Your task to perform on an android device: Go to accessibility settings Image 0: 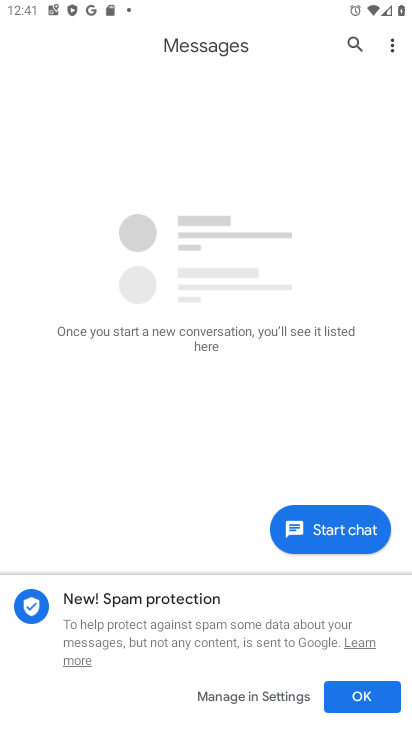
Step 0: press home button
Your task to perform on an android device: Go to accessibility settings Image 1: 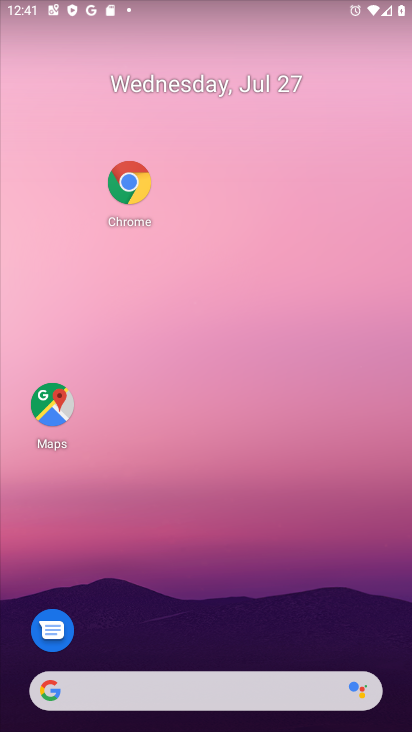
Step 1: drag from (134, 718) to (215, 57)
Your task to perform on an android device: Go to accessibility settings Image 2: 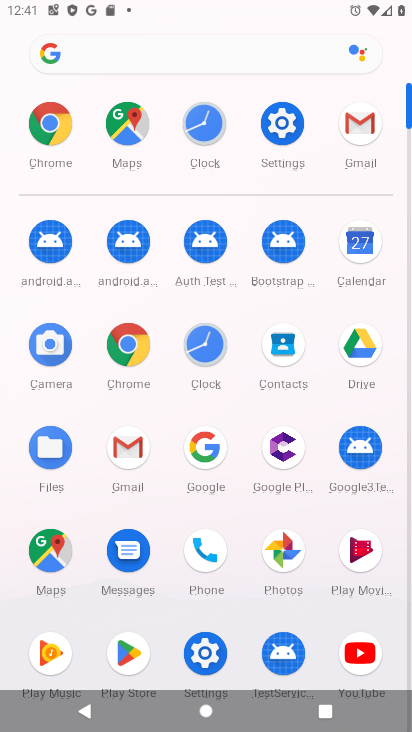
Step 2: click (279, 140)
Your task to perform on an android device: Go to accessibility settings Image 3: 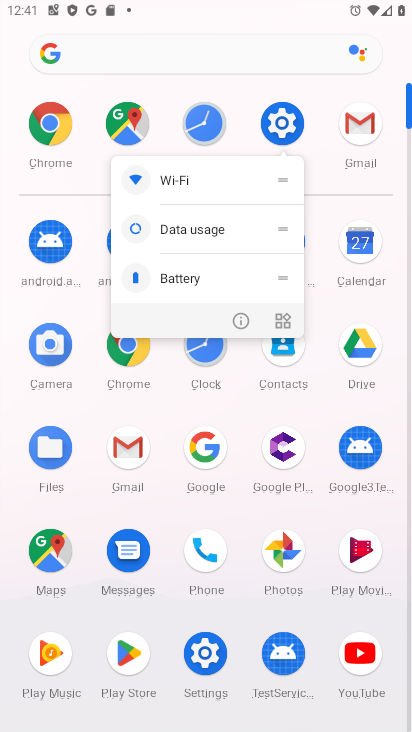
Step 3: click (279, 140)
Your task to perform on an android device: Go to accessibility settings Image 4: 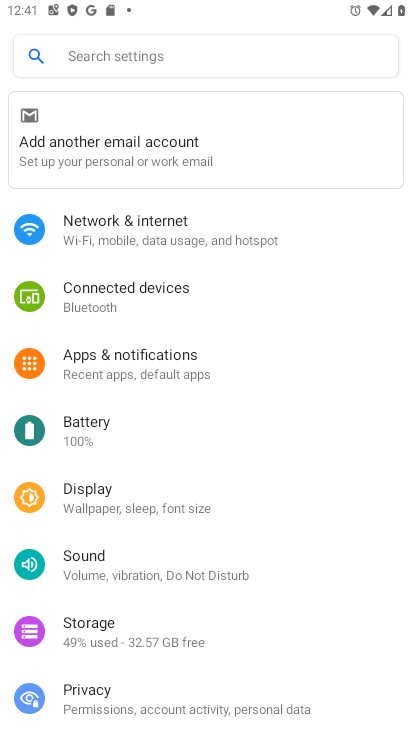
Step 4: drag from (304, 640) to (262, 12)
Your task to perform on an android device: Go to accessibility settings Image 5: 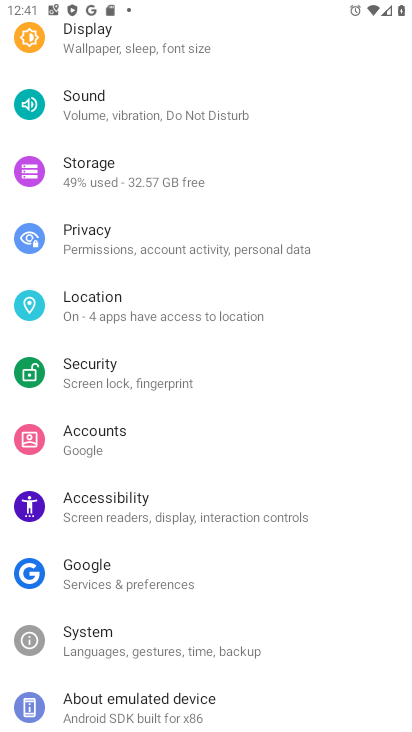
Step 5: click (144, 520)
Your task to perform on an android device: Go to accessibility settings Image 6: 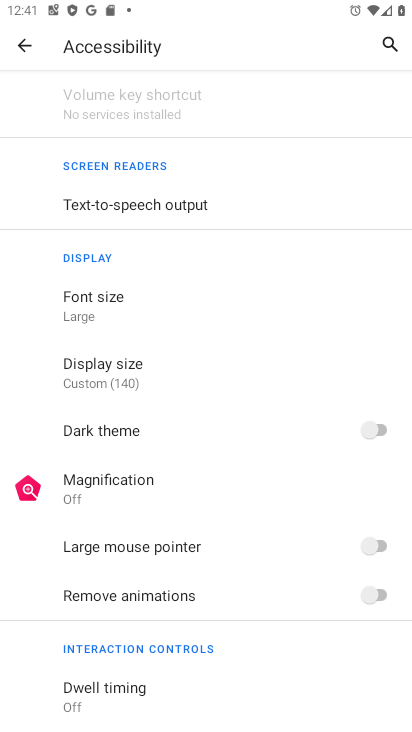
Step 6: task complete